Your task to perform on an android device: Open Google Chrome Image 0: 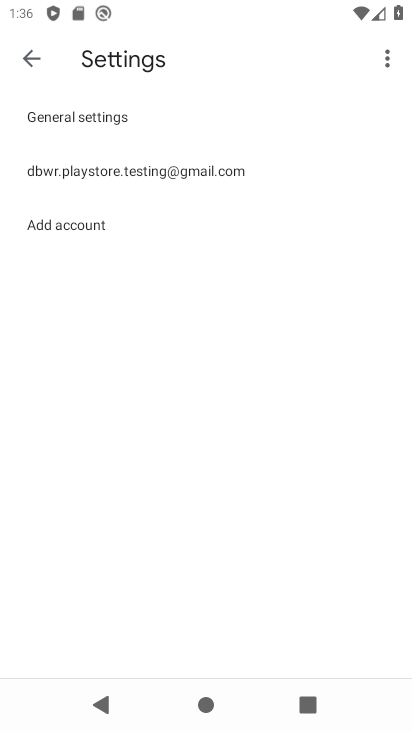
Step 0: press back button
Your task to perform on an android device: Open Google Chrome Image 1: 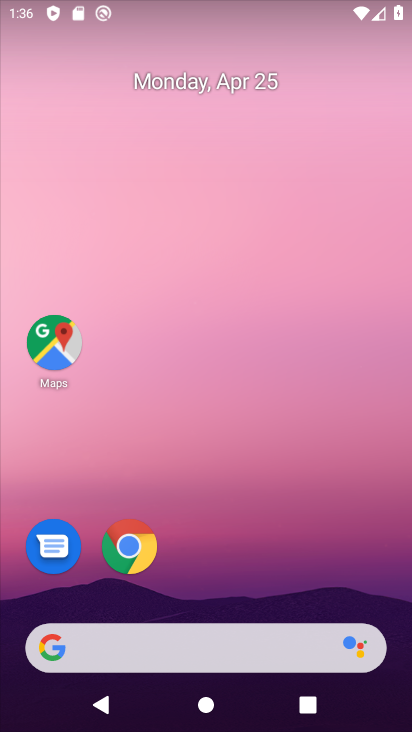
Step 1: drag from (217, 531) to (293, 38)
Your task to perform on an android device: Open Google Chrome Image 2: 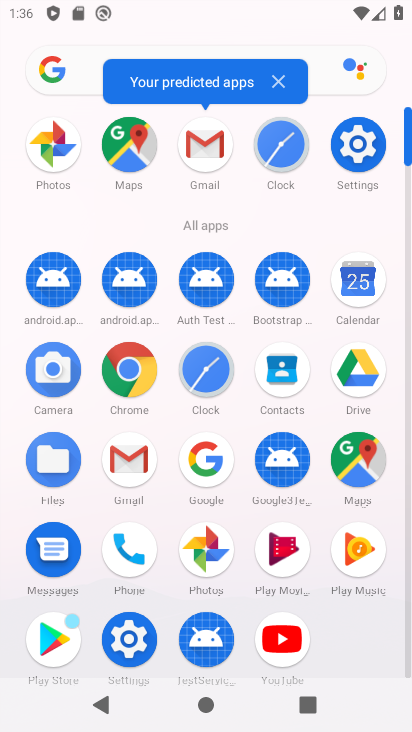
Step 2: click (131, 373)
Your task to perform on an android device: Open Google Chrome Image 3: 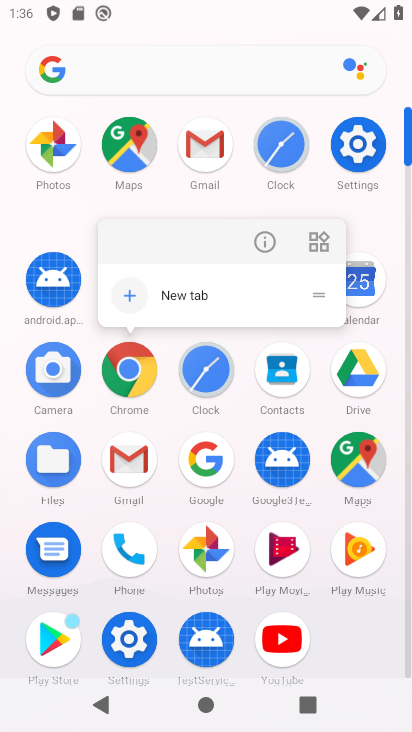
Step 3: click (133, 375)
Your task to perform on an android device: Open Google Chrome Image 4: 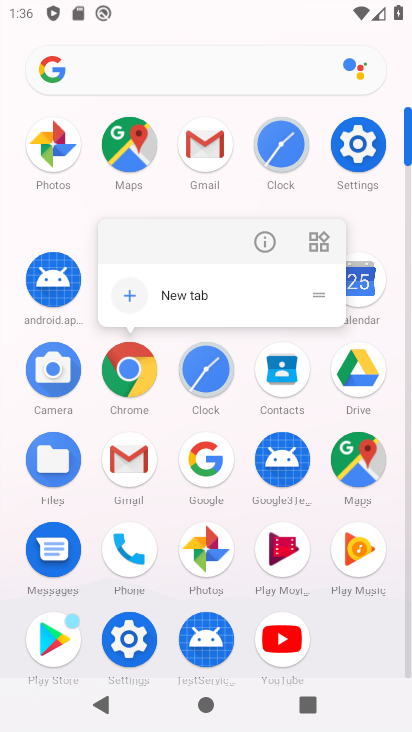
Step 4: click (135, 380)
Your task to perform on an android device: Open Google Chrome Image 5: 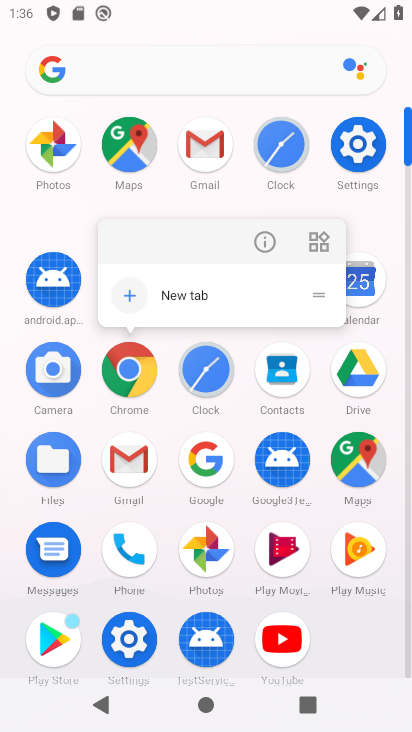
Step 5: click (138, 381)
Your task to perform on an android device: Open Google Chrome Image 6: 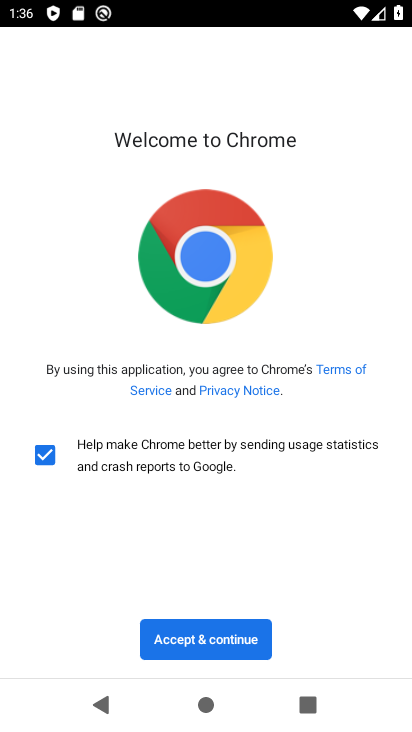
Step 6: click (171, 653)
Your task to perform on an android device: Open Google Chrome Image 7: 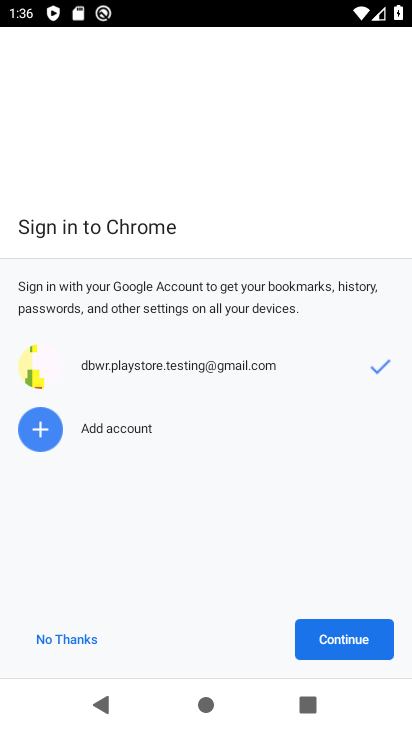
Step 7: click (383, 631)
Your task to perform on an android device: Open Google Chrome Image 8: 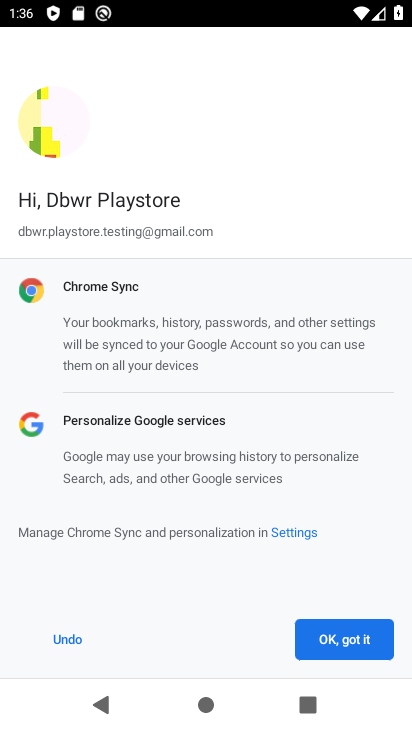
Step 8: click (371, 636)
Your task to perform on an android device: Open Google Chrome Image 9: 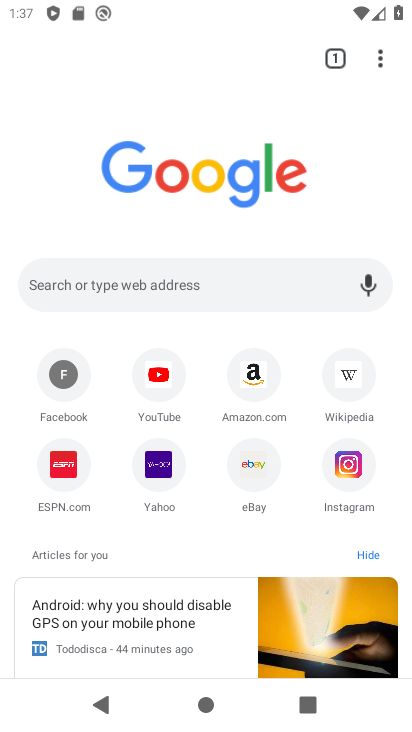
Step 9: task complete